Your task to perform on an android device: change the clock display to digital Image 0: 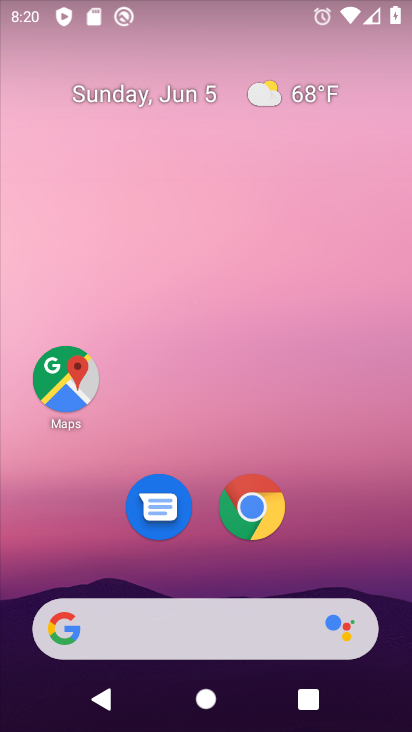
Step 0: drag from (241, 719) to (224, 78)
Your task to perform on an android device: change the clock display to digital Image 1: 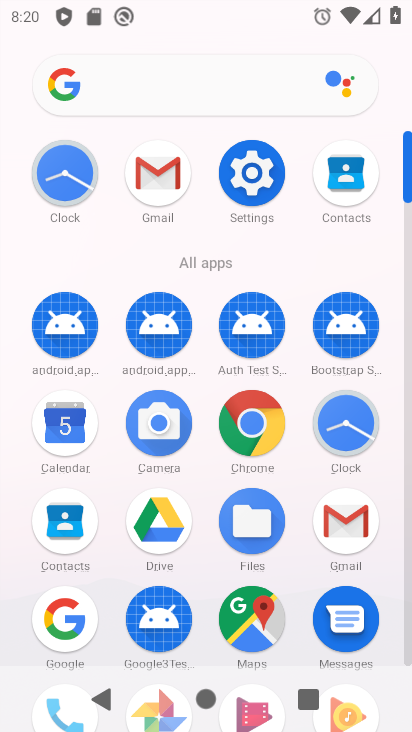
Step 1: click (345, 423)
Your task to perform on an android device: change the clock display to digital Image 2: 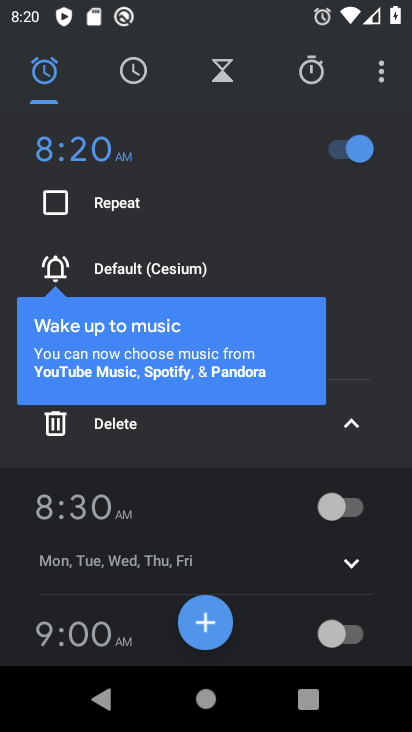
Step 2: click (382, 80)
Your task to perform on an android device: change the clock display to digital Image 3: 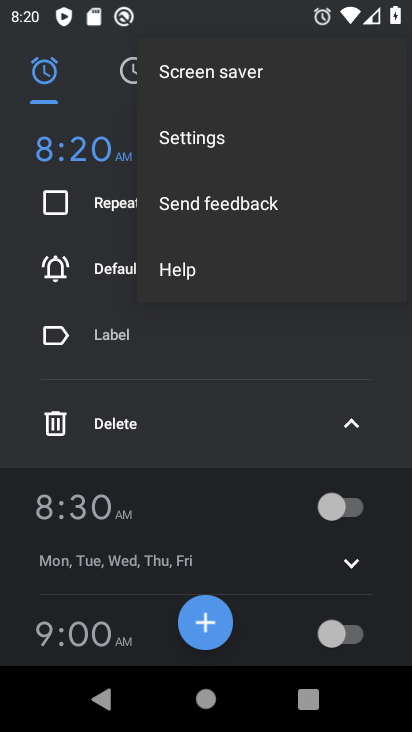
Step 3: click (169, 137)
Your task to perform on an android device: change the clock display to digital Image 4: 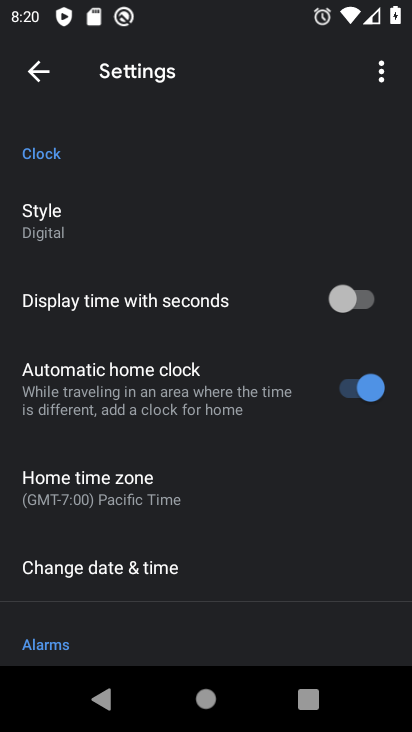
Step 4: task complete